Your task to perform on an android device: Search for Italian restaurants on Maps Image 0: 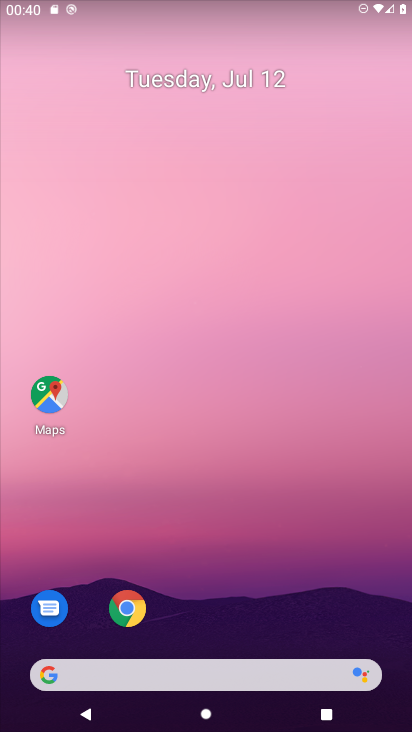
Step 0: drag from (182, 615) to (167, 26)
Your task to perform on an android device: Search for Italian restaurants on Maps Image 1: 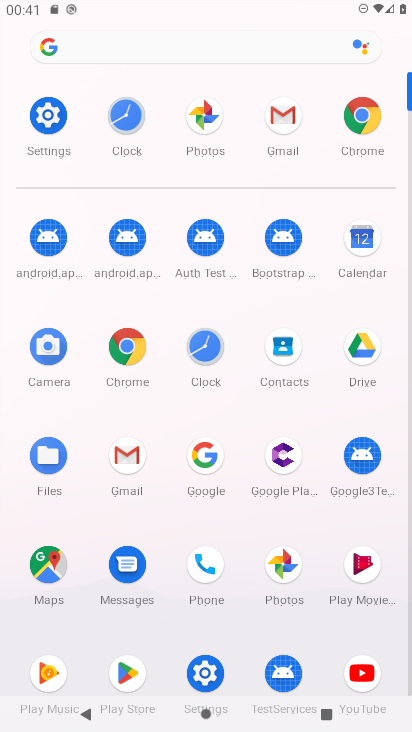
Step 1: click (49, 573)
Your task to perform on an android device: Search for Italian restaurants on Maps Image 2: 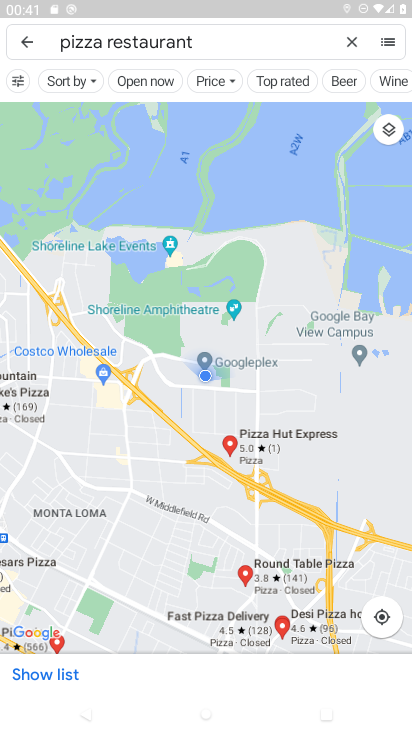
Step 2: click (354, 39)
Your task to perform on an android device: Search for Italian restaurants on Maps Image 3: 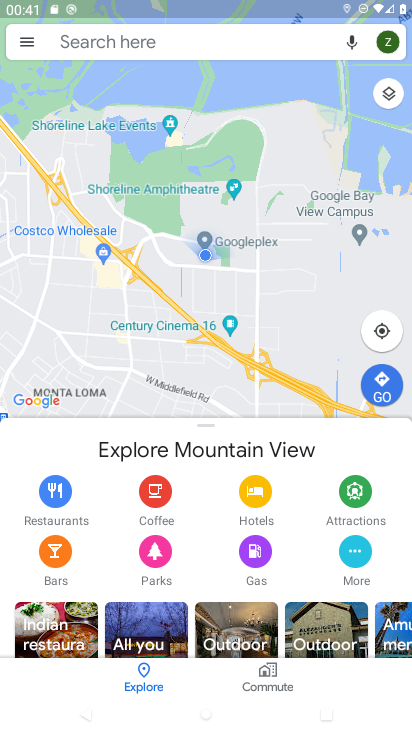
Step 3: click (185, 49)
Your task to perform on an android device: Search for Italian restaurants on Maps Image 4: 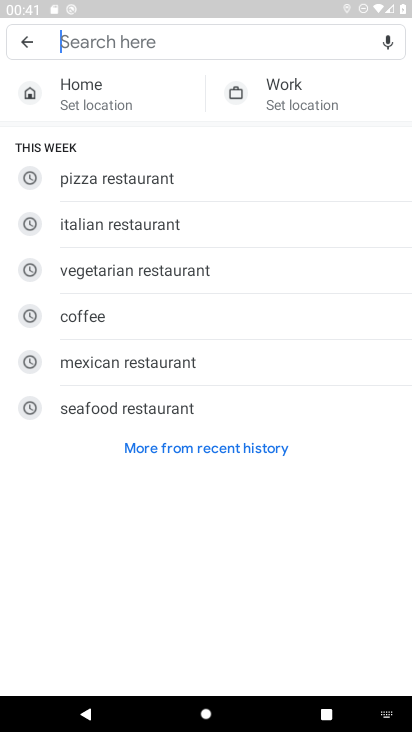
Step 4: click (91, 234)
Your task to perform on an android device: Search for Italian restaurants on Maps Image 5: 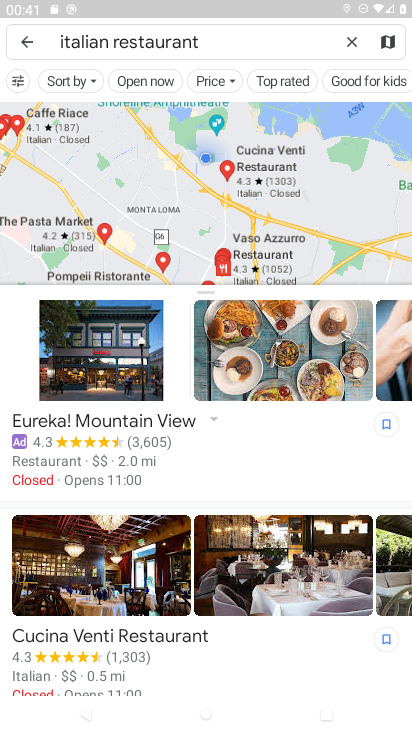
Step 5: task complete